Your task to perform on an android device: Show me productivity apps on the Play Store Image 0: 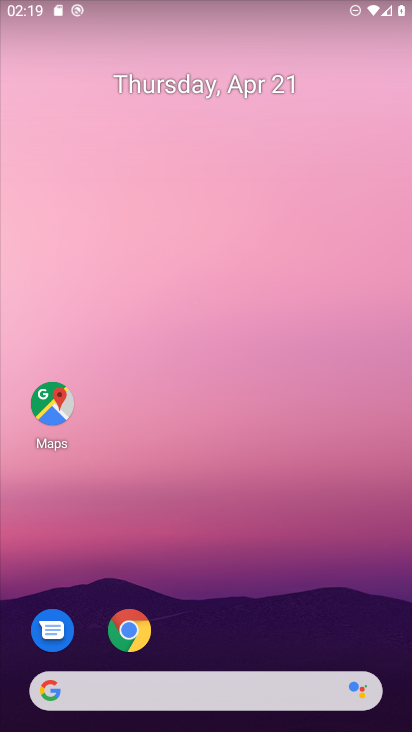
Step 0: drag from (233, 632) to (235, 71)
Your task to perform on an android device: Show me productivity apps on the Play Store Image 1: 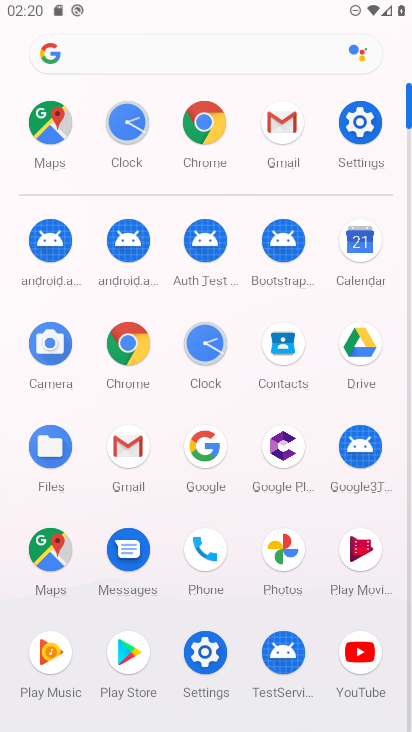
Step 1: click (408, 389)
Your task to perform on an android device: Show me productivity apps on the Play Store Image 2: 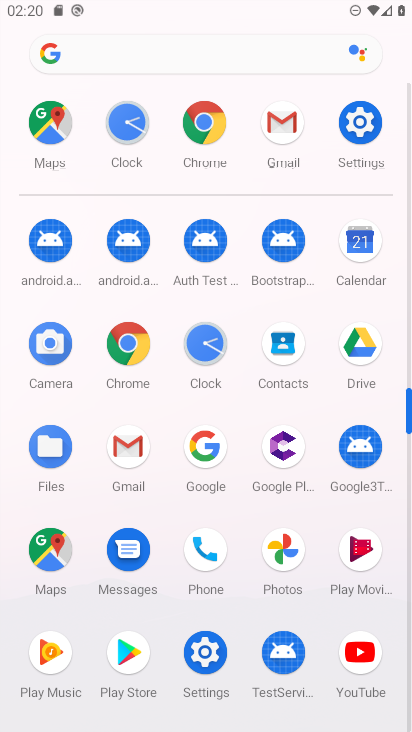
Step 2: click (138, 674)
Your task to perform on an android device: Show me productivity apps on the Play Store Image 3: 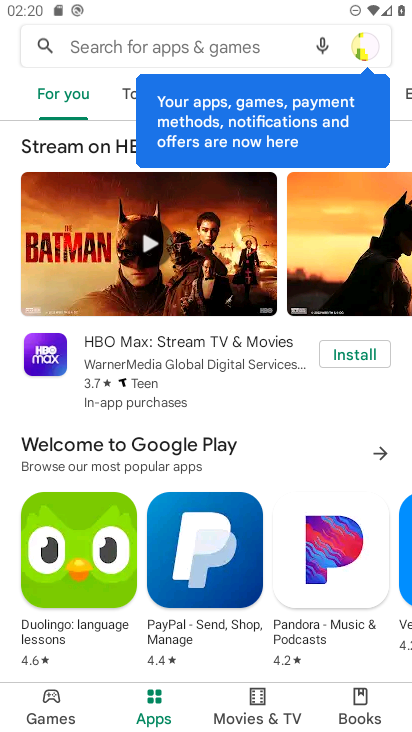
Step 3: click (122, 101)
Your task to perform on an android device: Show me productivity apps on the Play Store Image 4: 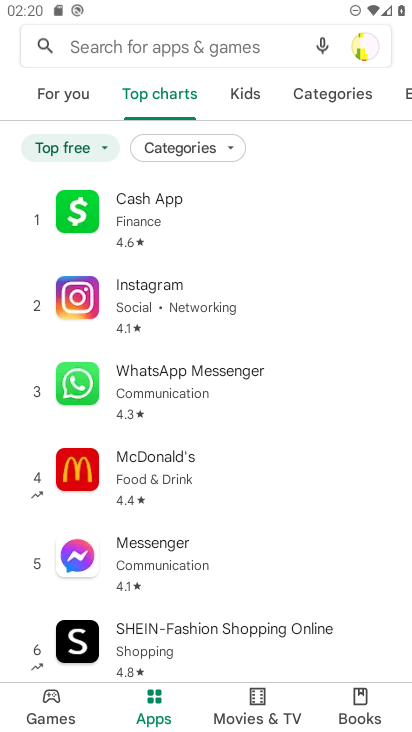
Step 4: click (188, 141)
Your task to perform on an android device: Show me productivity apps on the Play Store Image 5: 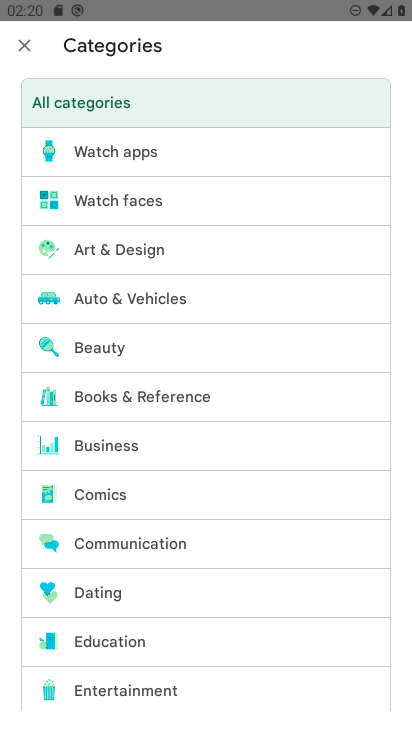
Step 5: drag from (196, 653) to (195, 352)
Your task to perform on an android device: Show me productivity apps on the Play Store Image 6: 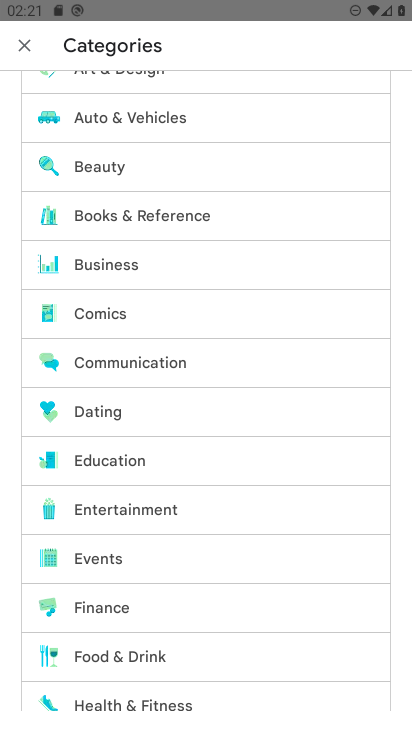
Step 6: drag from (202, 599) to (193, 71)
Your task to perform on an android device: Show me productivity apps on the Play Store Image 7: 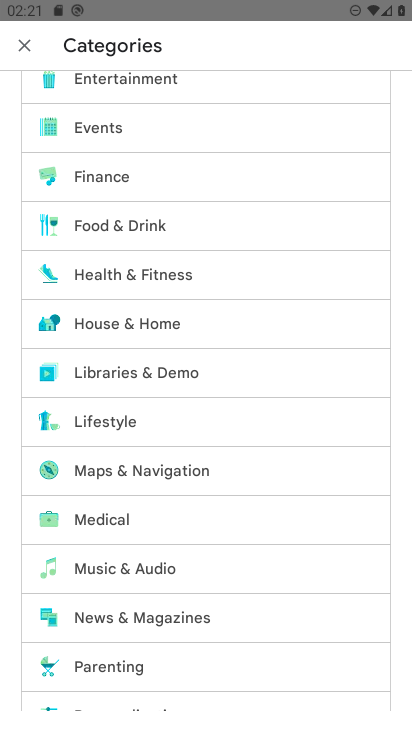
Step 7: drag from (213, 644) to (208, 198)
Your task to perform on an android device: Show me productivity apps on the Play Store Image 8: 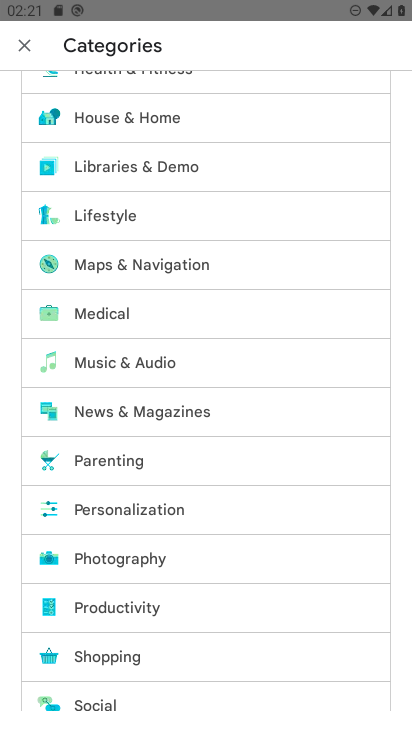
Step 8: click (172, 598)
Your task to perform on an android device: Show me productivity apps on the Play Store Image 9: 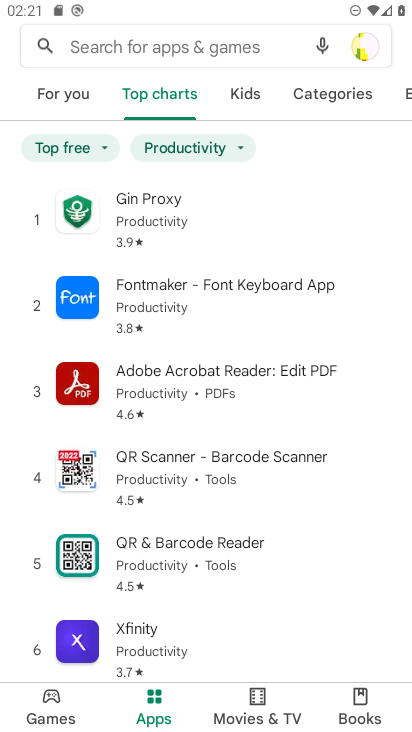
Step 9: task complete